Your task to perform on an android device: Play the last video I watched on Youtube Image 0: 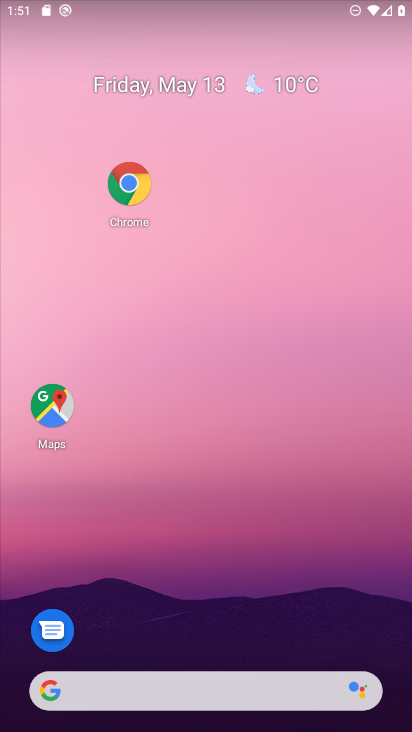
Step 0: drag from (190, 676) to (251, 143)
Your task to perform on an android device: Play the last video I watched on Youtube Image 1: 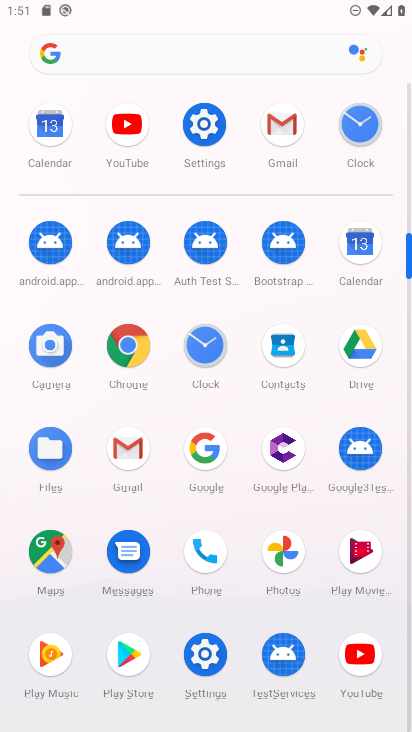
Step 1: click (364, 663)
Your task to perform on an android device: Play the last video I watched on Youtube Image 2: 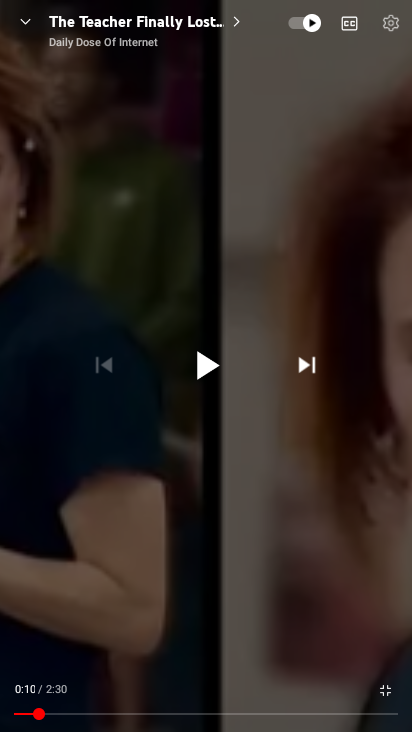
Step 2: press back button
Your task to perform on an android device: Play the last video I watched on Youtube Image 3: 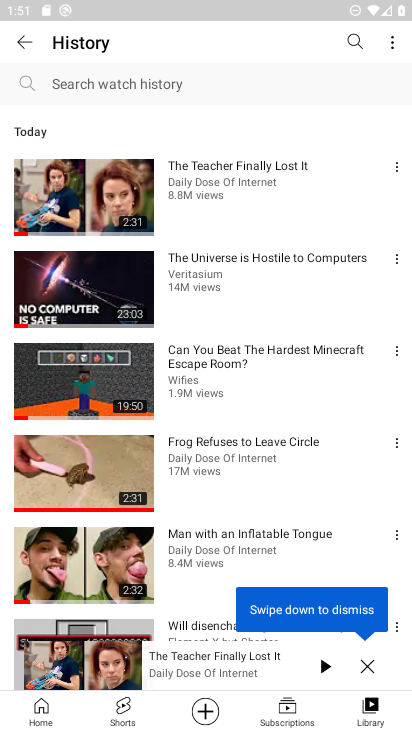
Step 3: click (178, 215)
Your task to perform on an android device: Play the last video I watched on Youtube Image 4: 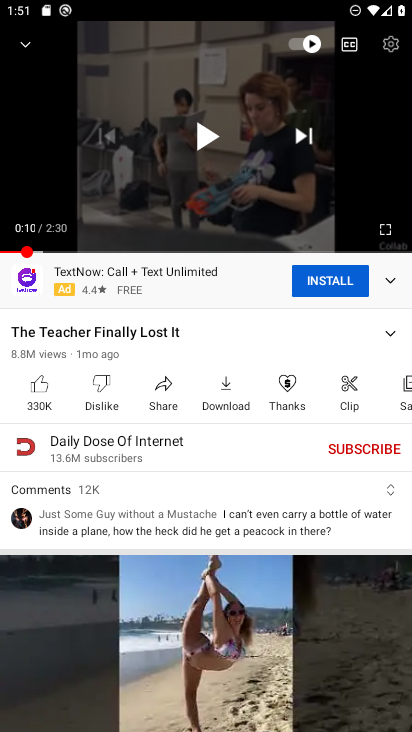
Step 4: task complete